Your task to perform on an android device: Open calendar and show me the fourth week of next month Image 0: 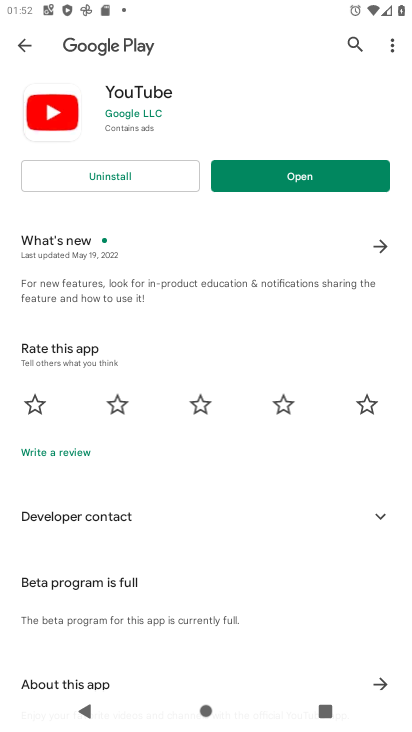
Step 0: press home button
Your task to perform on an android device: Open calendar and show me the fourth week of next month Image 1: 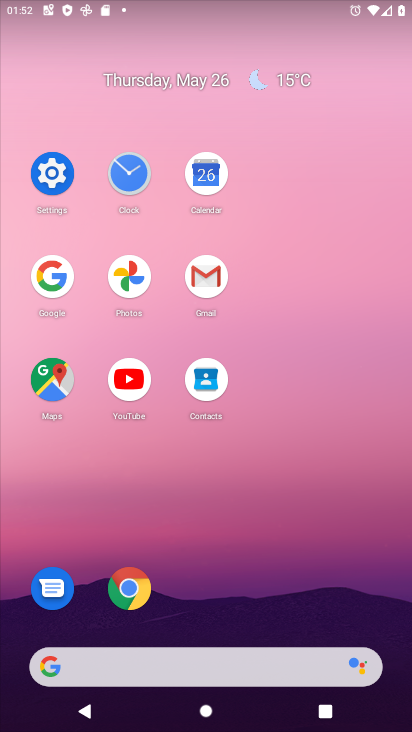
Step 1: click (193, 182)
Your task to perform on an android device: Open calendar and show me the fourth week of next month Image 2: 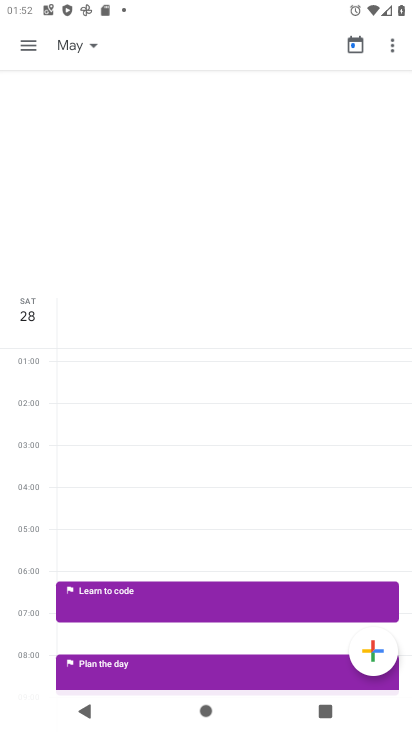
Step 2: click (76, 45)
Your task to perform on an android device: Open calendar and show me the fourth week of next month Image 3: 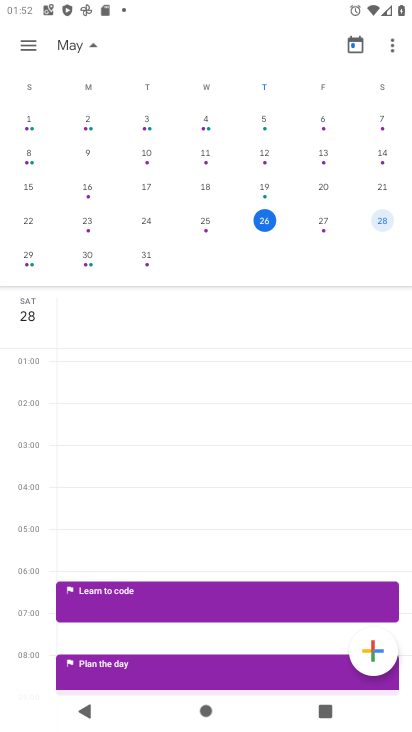
Step 3: drag from (397, 176) to (0, 75)
Your task to perform on an android device: Open calendar and show me the fourth week of next month Image 4: 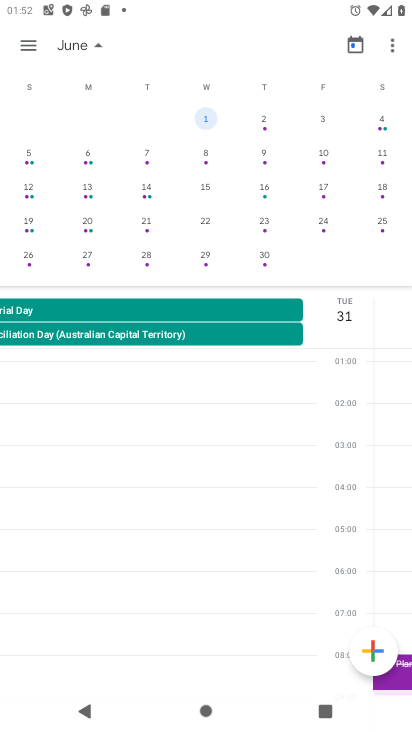
Step 4: click (24, 47)
Your task to perform on an android device: Open calendar and show me the fourth week of next month Image 5: 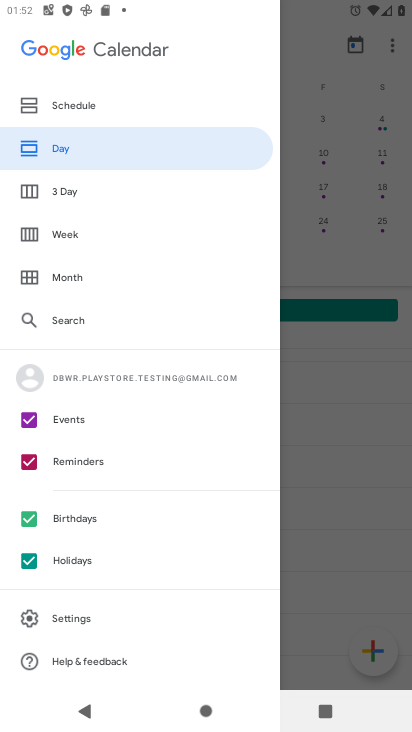
Step 5: click (115, 228)
Your task to perform on an android device: Open calendar and show me the fourth week of next month Image 6: 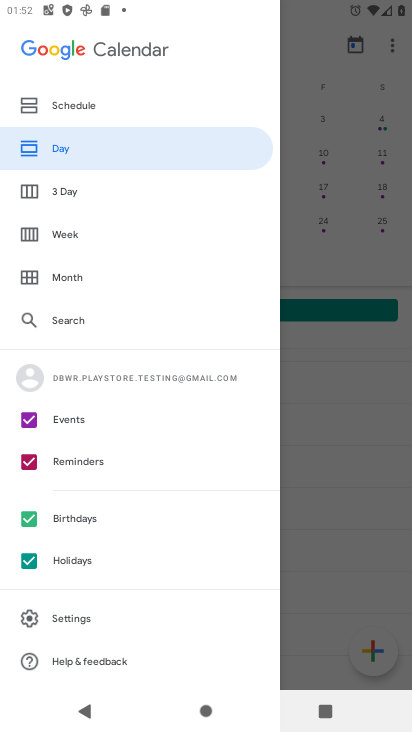
Step 6: click (77, 225)
Your task to perform on an android device: Open calendar and show me the fourth week of next month Image 7: 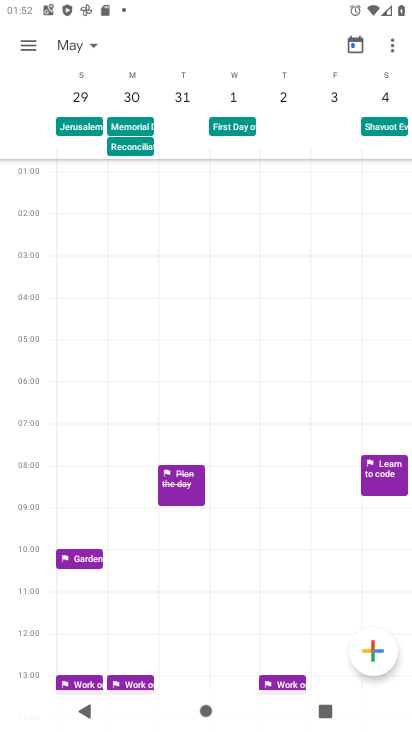
Step 7: task complete